Your task to perform on an android device: turn off improve location accuracy Image 0: 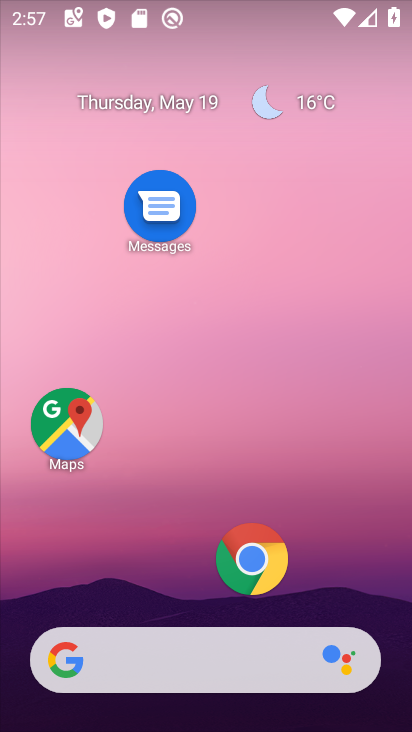
Step 0: drag from (207, 588) to (215, 239)
Your task to perform on an android device: turn off improve location accuracy Image 1: 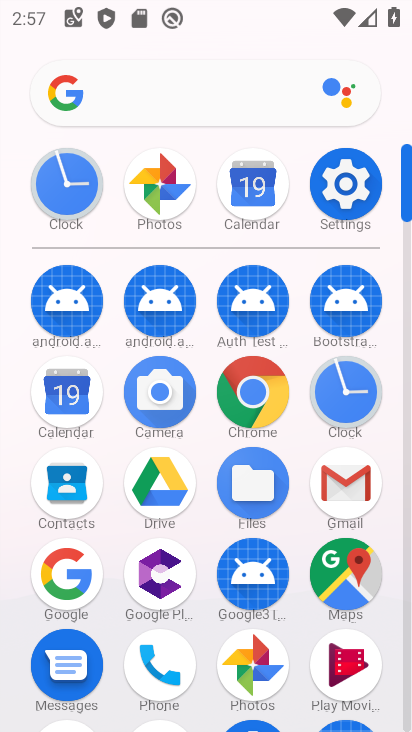
Step 1: click (333, 189)
Your task to perform on an android device: turn off improve location accuracy Image 2: 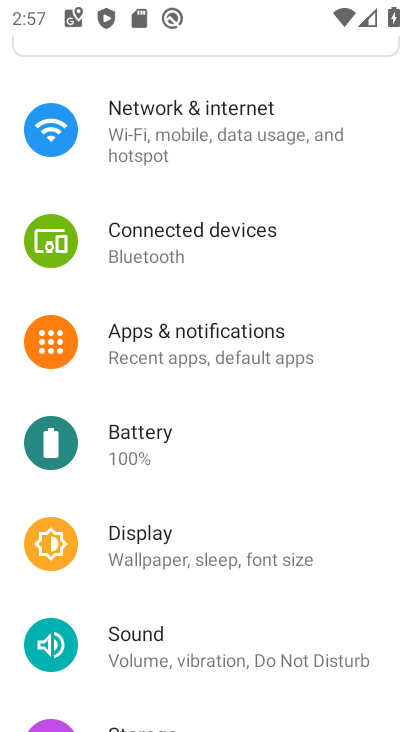
Step 2: drag from (209, 595) to (230, 395)
Your task to perform on an android device: turn off improve location accuracy Image 3: 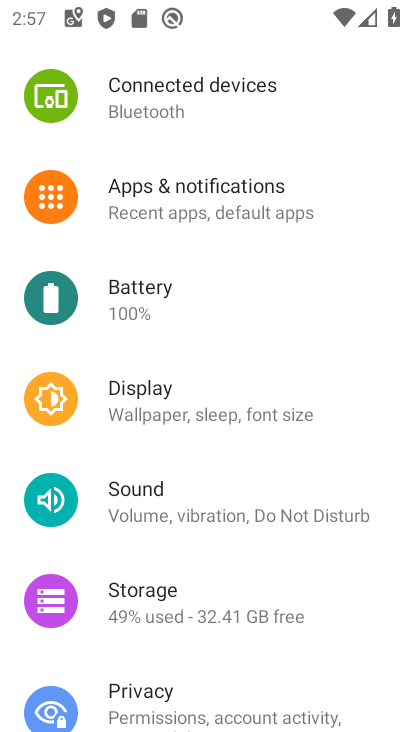
Step 3: drag from (210, 604) to (232, 400)
Your task to perform on an android device: turn off improve location accuracy Image 4: 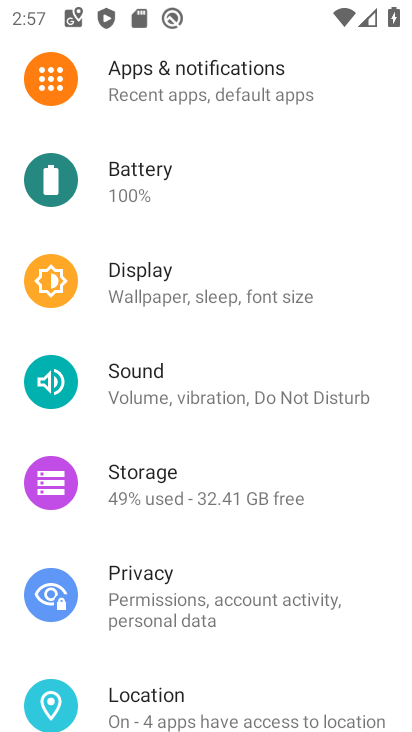
Step 4: click (187, 710)
Your task to perform on an android device: turn off improve location accuracy Image 5: 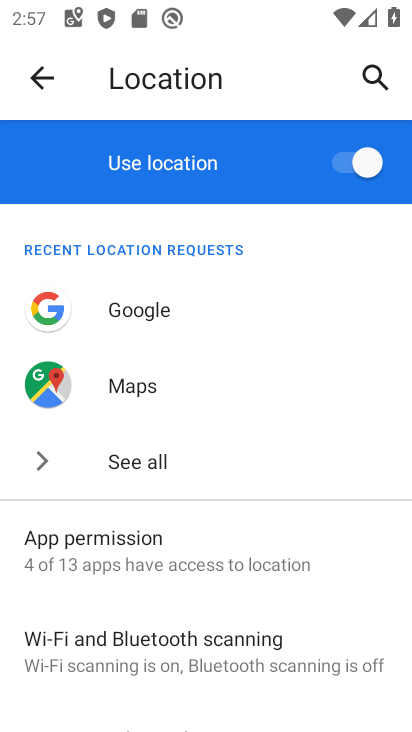
Step 5: drag from (177, 597) to (203, 502)
Your task to perform on an android device: turn off improve location accuracy Image 6: 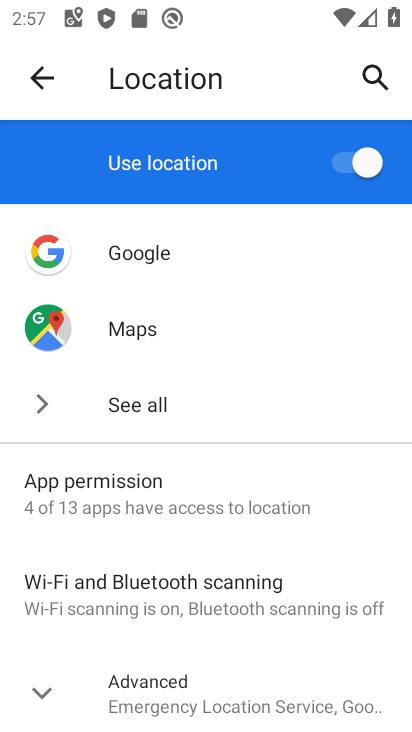
Step 6: drag from (191, 651) to (202, 587)
Your task to perform on an android device: turn off improve location accuracy Image 7: 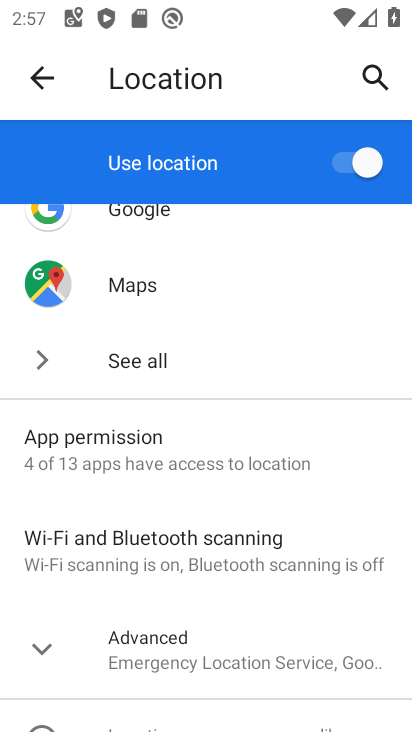
Step 7: click (191, 661)
Your task to perform on an android device: turn off improve location accuracy Image 8: 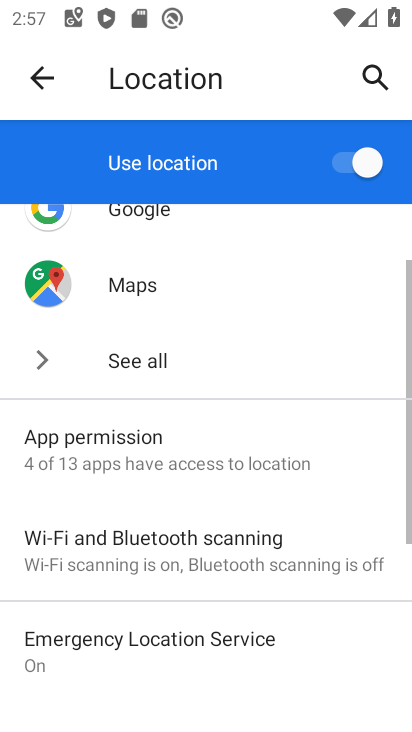
Step 8: drag from (191, 661) to (222, 434)
Your task to perform on an android device: turn off improve location accuracy Image 9: 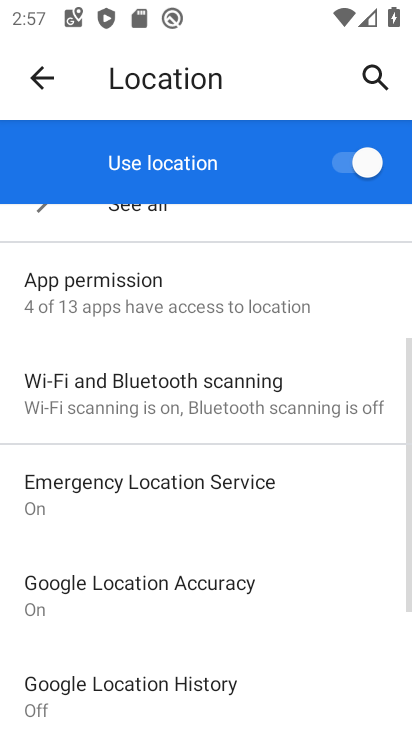
Step 9: drag from (201, 596) to (234, 486)
Your task to perform on an android device: turn off improve location accuracy Image 10: 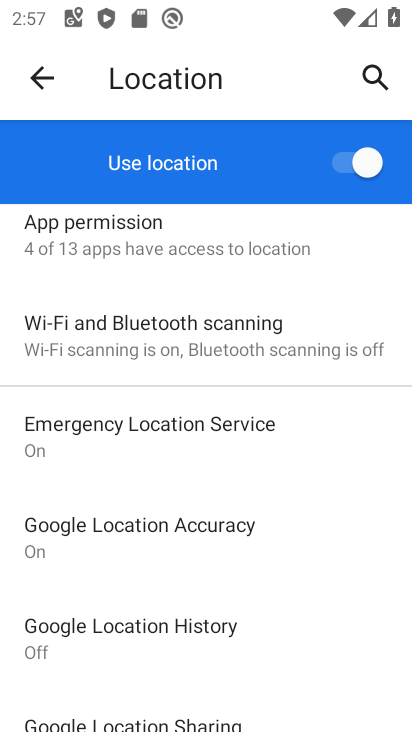
Step 10: click (189, 543)
Your task to perform on an android device: turn off improve location accuracy Image 11: 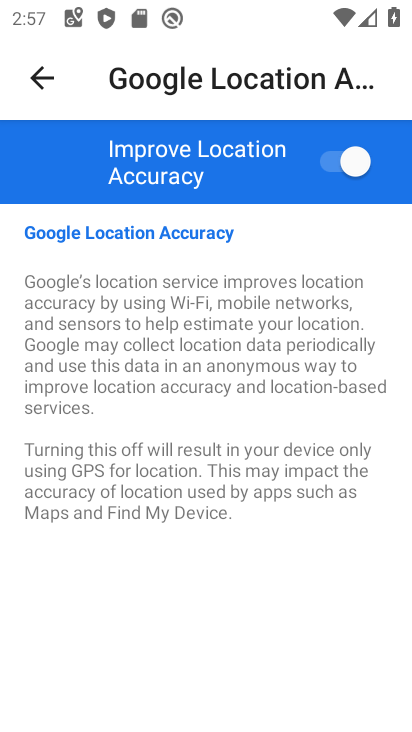
Step 11: click (332, 165)
Your task to perform on an android device: turn off improve location accuracy Image 12: 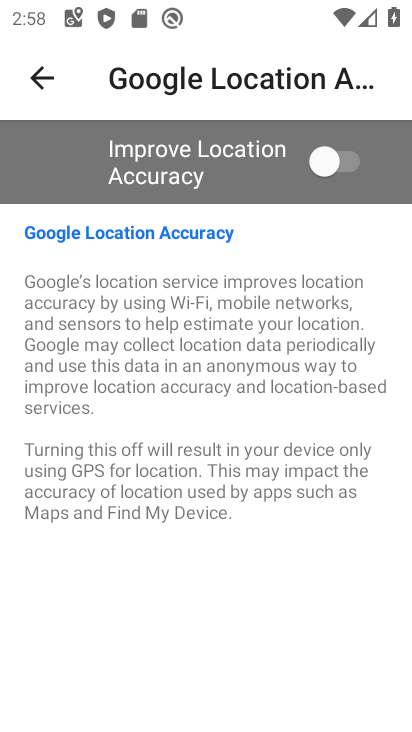
Step 12: task complete